Your task to perform on an android device: turn on showing notifications on the lock screen Image 0: 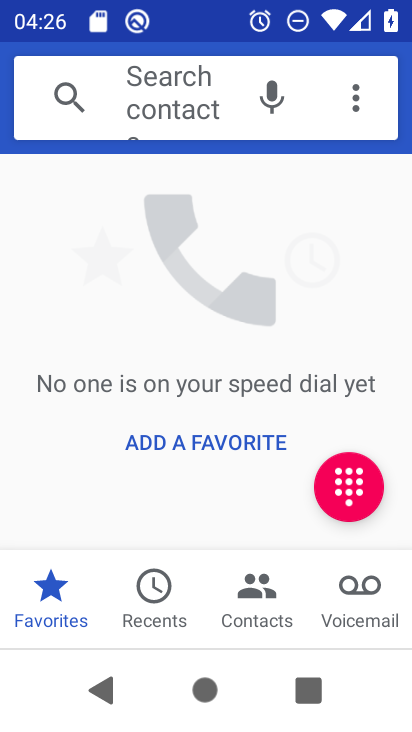
Step 0: press home button
Your task to perform on an android device: turn on showing notifications on the lock screen Image 1: 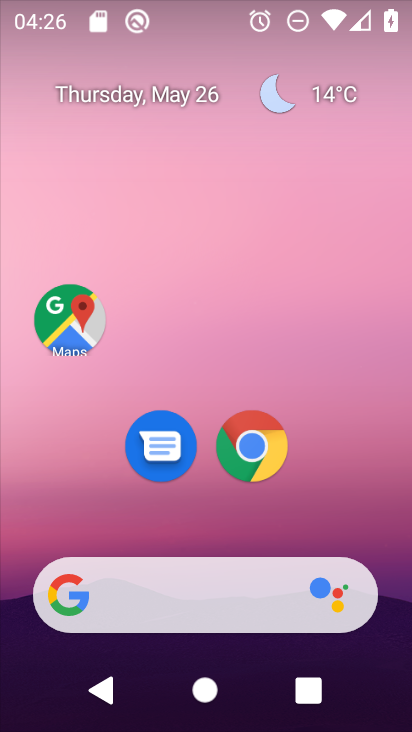
Step 1: drag from (356, 545) to (319, 13)
Your task to perform on an android device: turn on showing notifications on the lock screen Image 2: 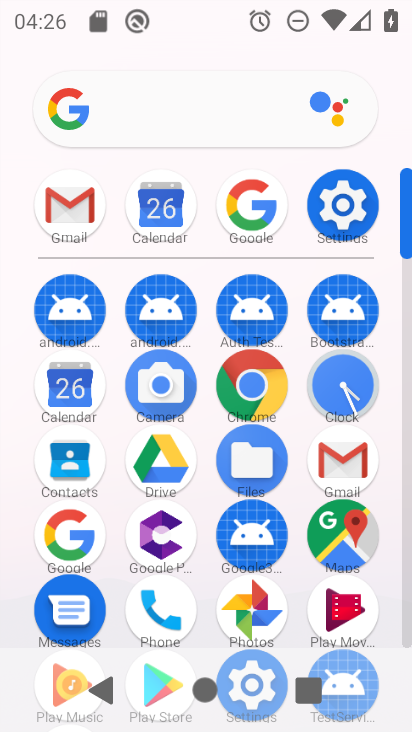
Step 2: click (342, 202)
Your task to perform on an android device: turn on showing notifications on the lock screen Image 3: 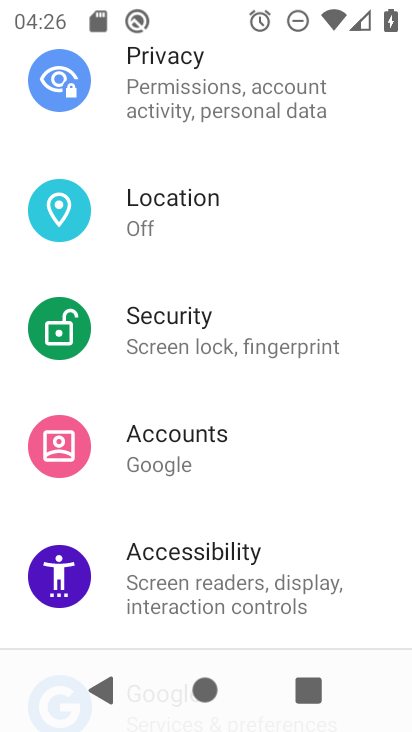
Step 3: drag from (342, 202) to (278, 444)
Your task to perform on an android device: turn on showing notifications on the lock screen Image 4: 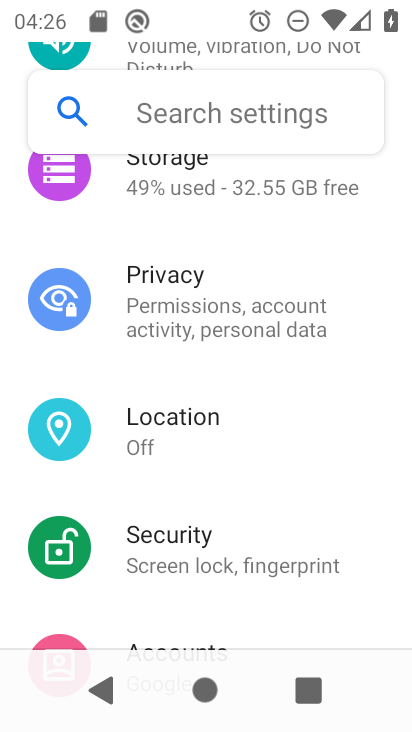
Step 4: drag from (213, 235) to (192, 509)
Your task to perform on an android device: turn on showing notifications on the lock screen Image 5: 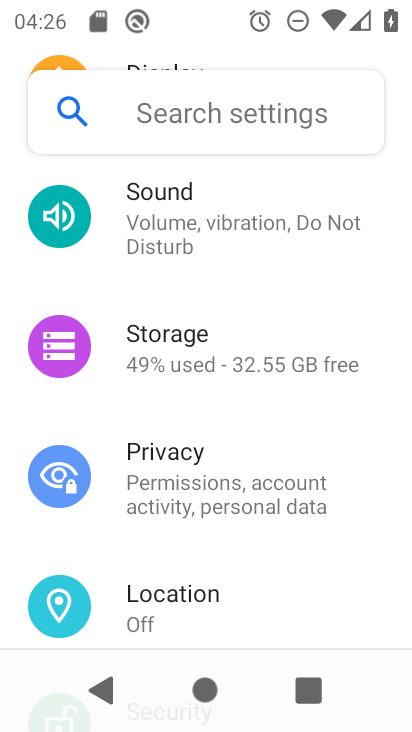
Step 5: drag from (204, 270) to (211, 606)
Your task to perform on an android device: turn on showing notifications on the lock screen Image 6: 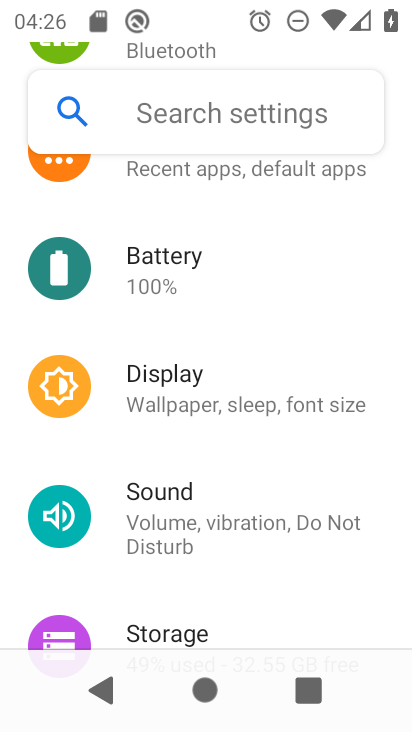
Step 6: drag from (211, 284) to (229, 620)
Your task to perform on an android device: turn on showing notifications on the lock screen Image 7: 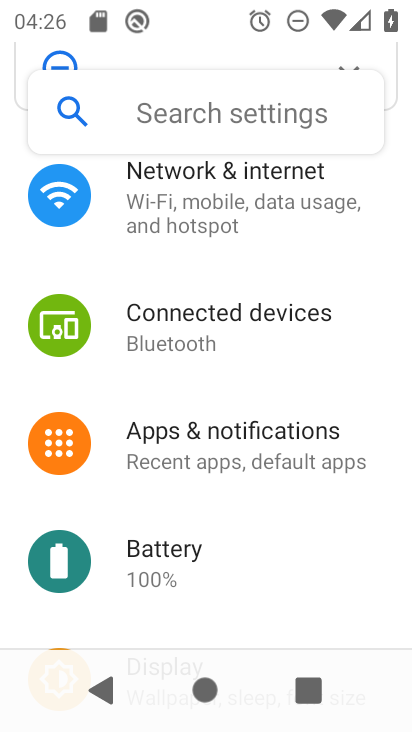
Step 7: click (203, 445)
Your task to perform on an android device: turn on showing notifications on the lock screen Image 8: 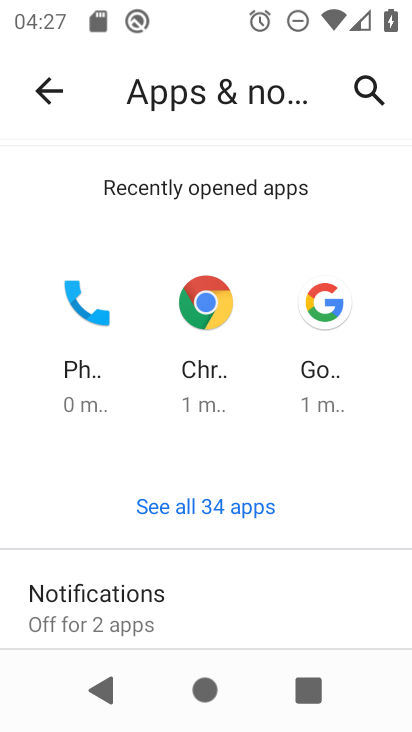
Step 8: drag from (124, 599) to (118, 342)
Your task to perform on an android device: turn on showing notifications on the lock screen Image 9: 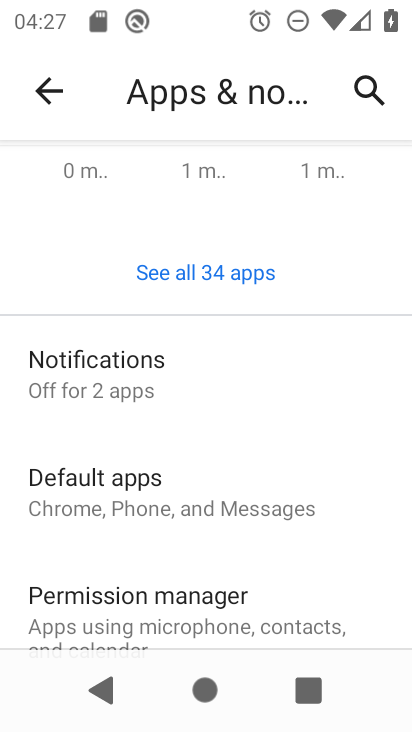
Step 9: click (93, 392)
Your task to perform on an android device: turn on showing notifications on the lock screen Image 10: 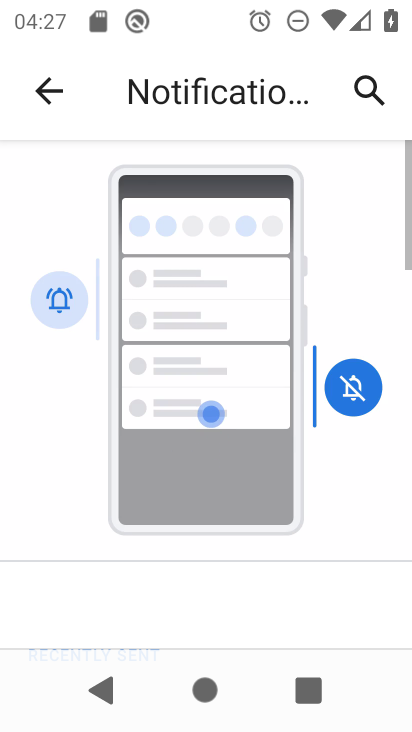
Step 10: drag from (198, 571) to (200, 127)
Your task to perform on an android device: turn on showing notifications on the lock screen Image 11: 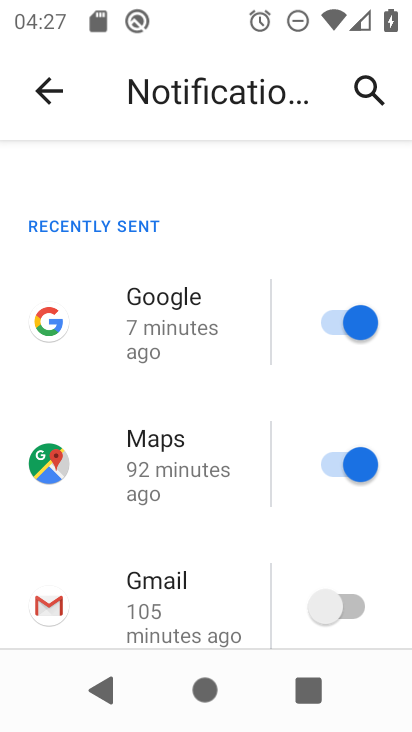
Step 11: drag from (156, 529) to (175, 114)
Your task to perform on an android device: turn on showing notifications on the lock screen Image 12: 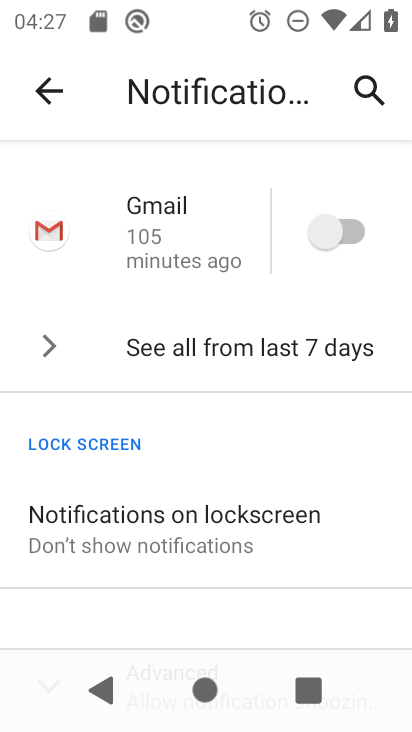
Step 12: click (150, 524)
Your task to perform on an android device: turn on showing notifications on the lock screen Image 13: 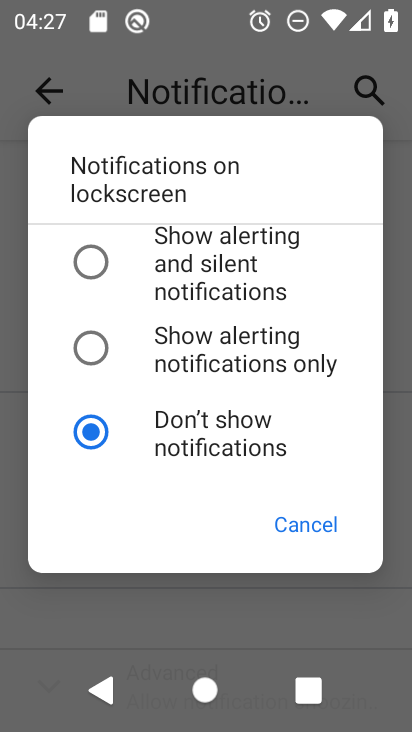
Step 13: click (86, 254)
Your task to perform on an android device: turn on showing notifications on the lock screen Image 14: 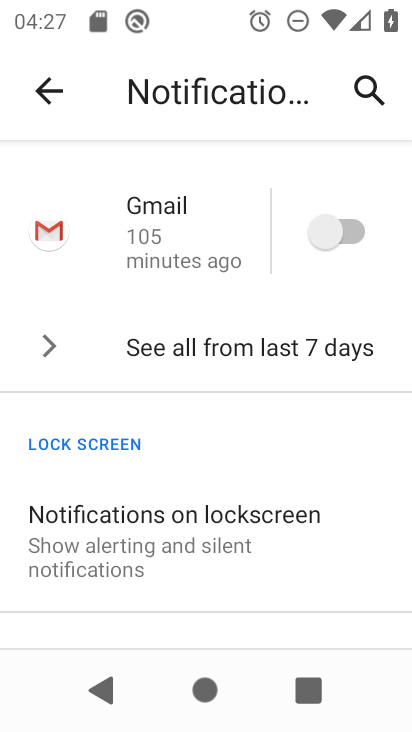
Step 14: task complete